Your task to perform on an android device: What's the weather today? Image 0: 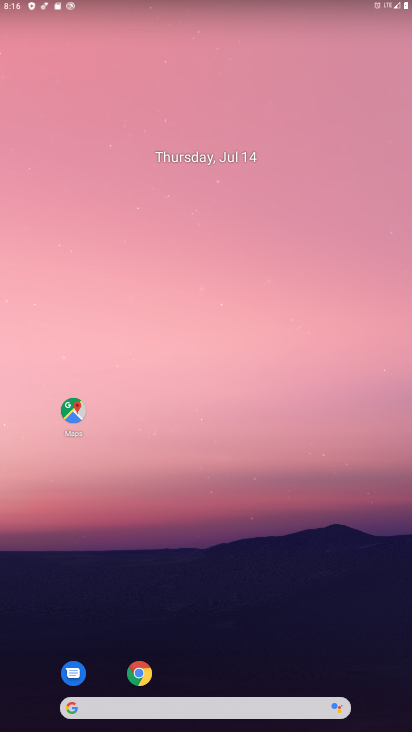
Step 0: drag from (226, 714) to (258, 135)
Your task to perform on an android device: What's the weather today? Image 1: 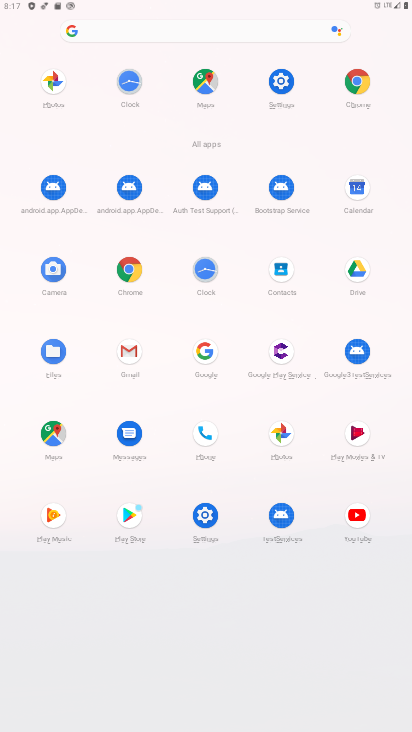
Step 1: click (206, 353)
Your task to perform on an android device: What's the weather today? Image 2: 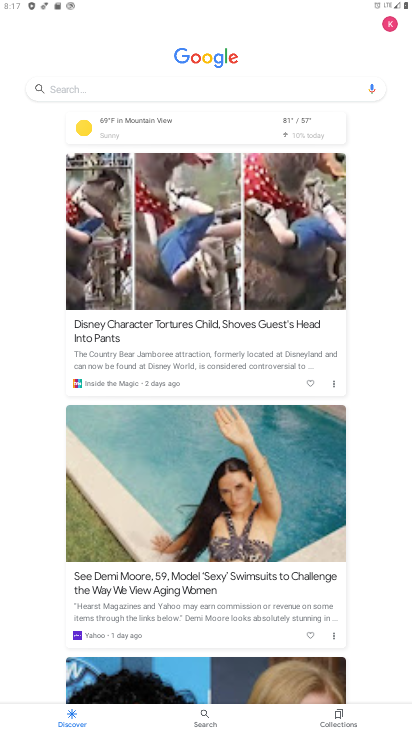
Step 2: click (217, 125)
Your task to perform on an android device: What's the weather today? Image 3: 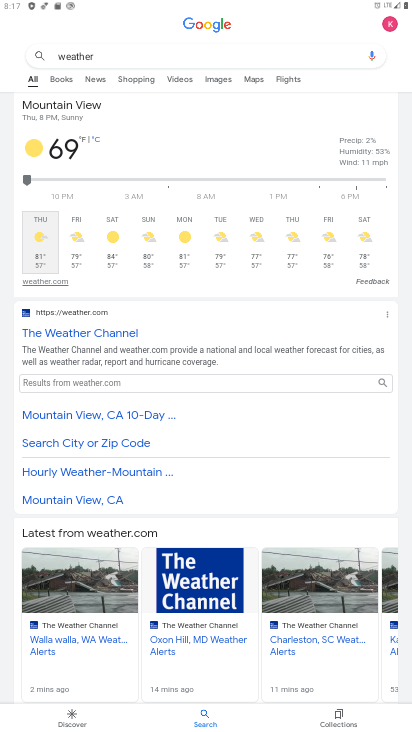
Step 3: task complete